Your task to perform on an android device: turn on bluetooth scan Image 0: 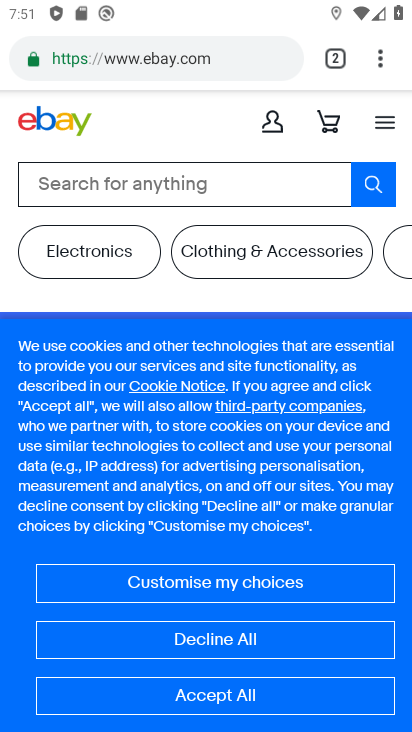
Step 0: press home button
Your task to perform on an android device: turn on bluetooth scan Image 1: 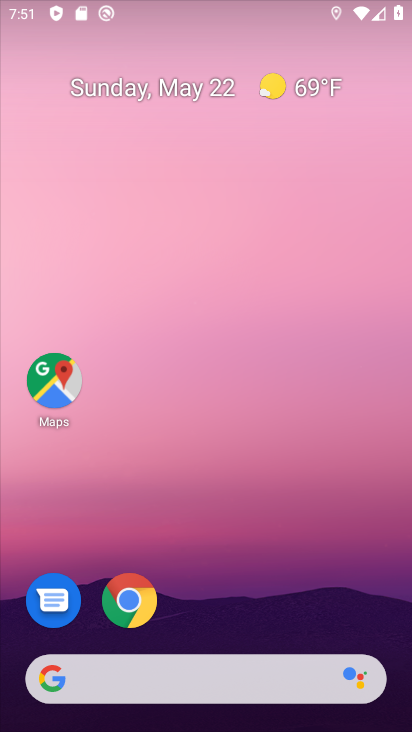
Step 1: drag from (227, 564) to (312, 184)
Your task to perform on an android device: turn on bluetooth scan Image 2: 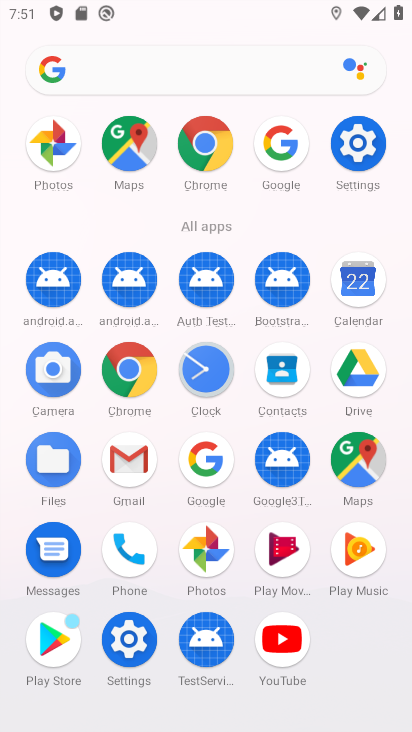
Step 2: click (364, 148)
Your task to perform on an android device: turn on bluetooth scan Image 3: 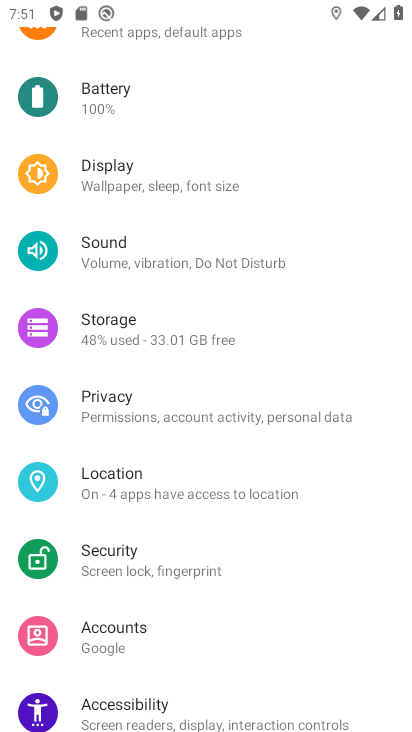
Step 3: click (135, 476)
Your task to perform on an android device: turn on bluetooth scan Image 4: 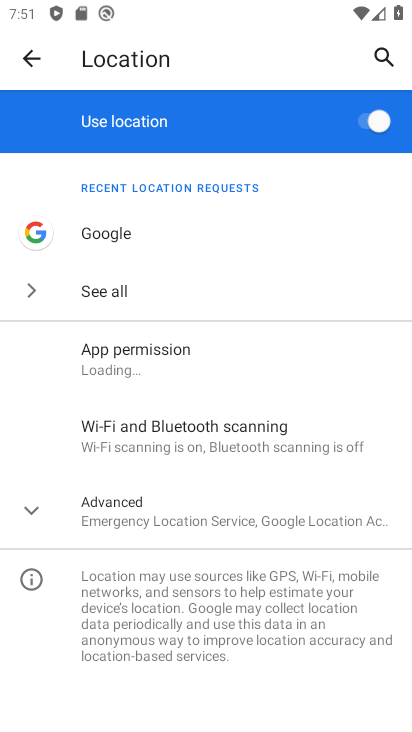
Step 4: click (184, 441)
Your task to perform on an android device: turn on bluetooth scan Image 5: 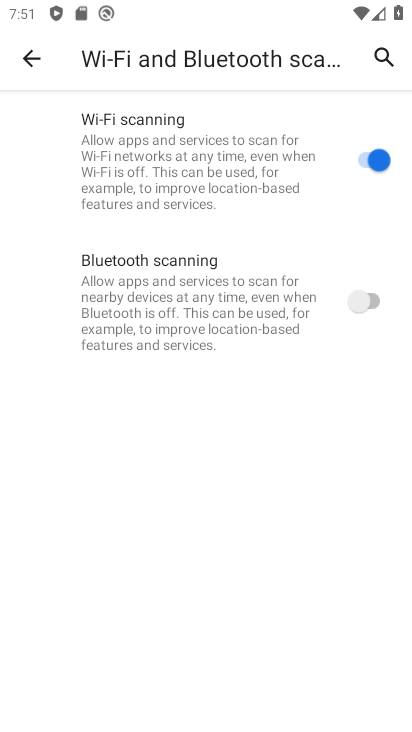
Step 5: click (367, 306)
Your task to perform on an android device: turn on bluetooth scan Image 6: 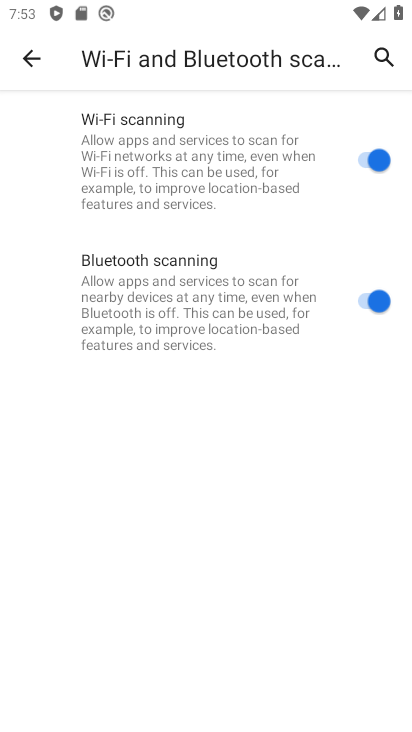
Step 6: task complete